Your task to perform on an android device: Search for Italian restaurants on Maps Image 0: 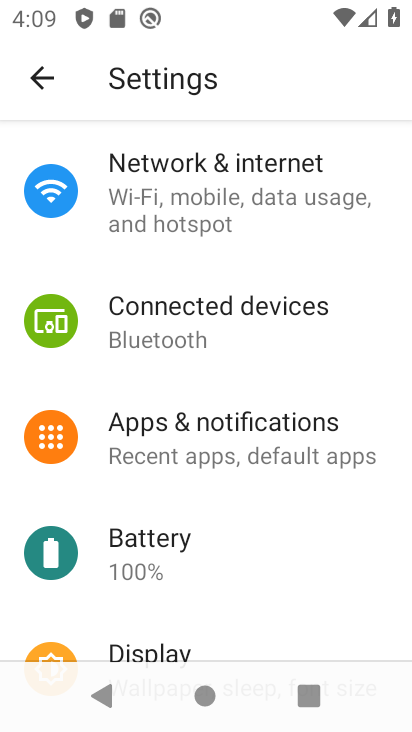
Step 0: press home button
Your task to perform on an android device: Search for Italian restaurants on Maps Image 1: 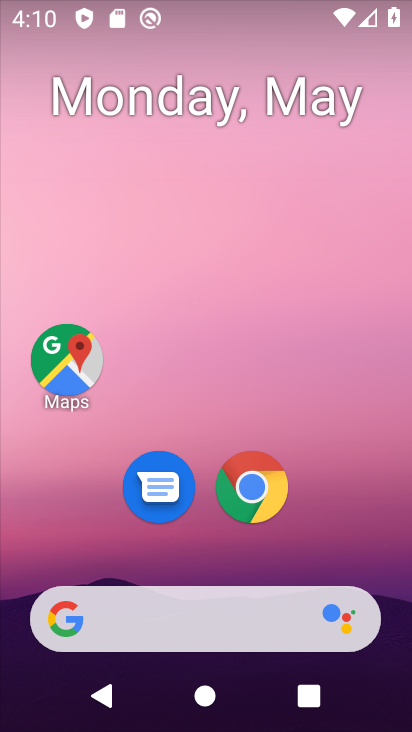
Step 1: click (62, 375)
Your task to perform on an android device: Search for Italian restaurants on Maps Image 2: 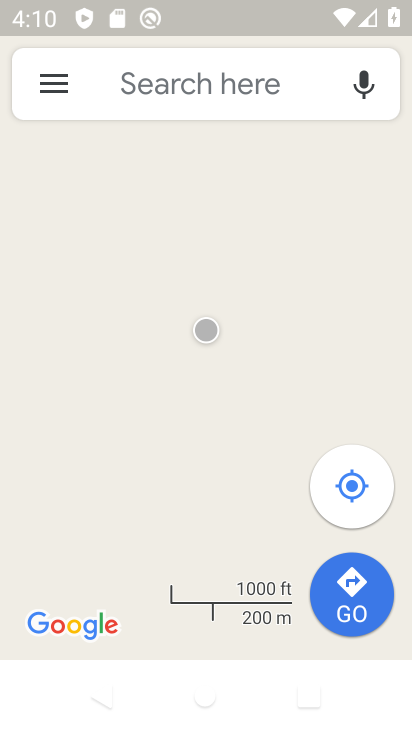
Step 2: click (170, 73)
Your task to perform on an android device: Search for Italian restaurants on Maps Image 3: 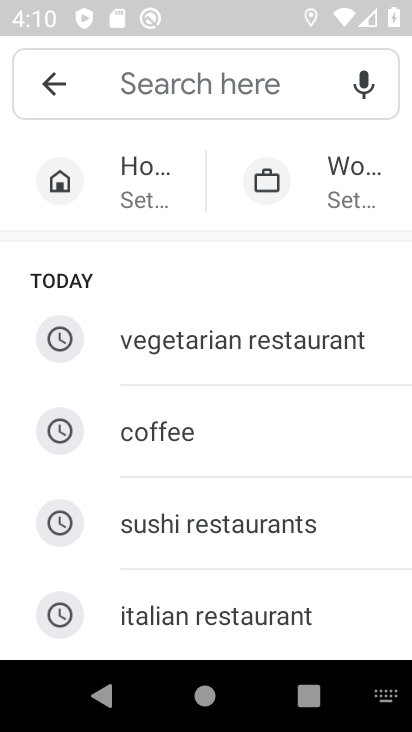
Step 3: type "Italian re"
Your task to perform on an android device: Search for Italian restaurants on Maps Image 4: 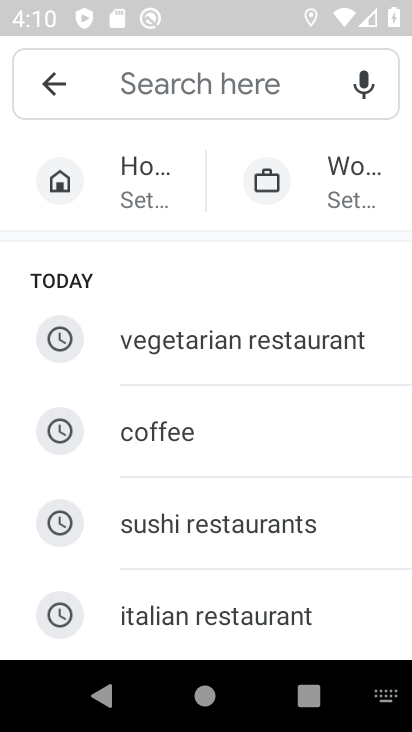
Step 4: click (303, 622)
Your task to perform on an android device: Search for Italian restaurants on Maps Image 5: 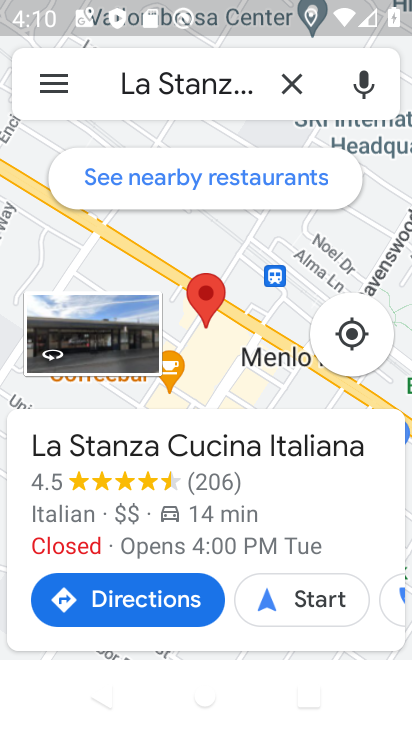
Step 5: task complete